Your task to perform on an android device: Open Chrome and go to settings Image 0: 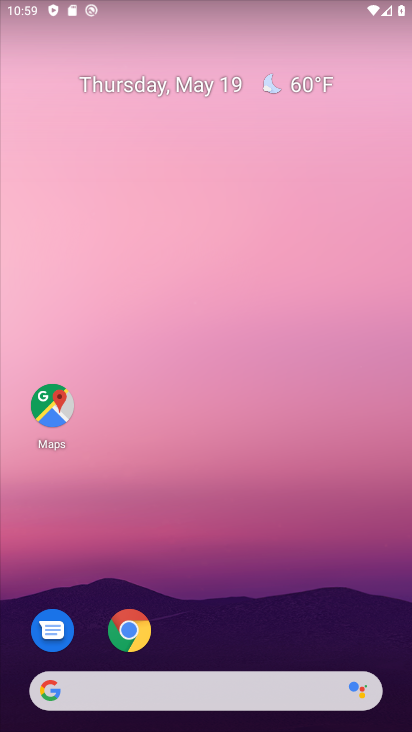
Step 0: drag from (221, 646) to (134, 210)
Your task to perform on an android device: Open Chrome and go to settings Image 1: 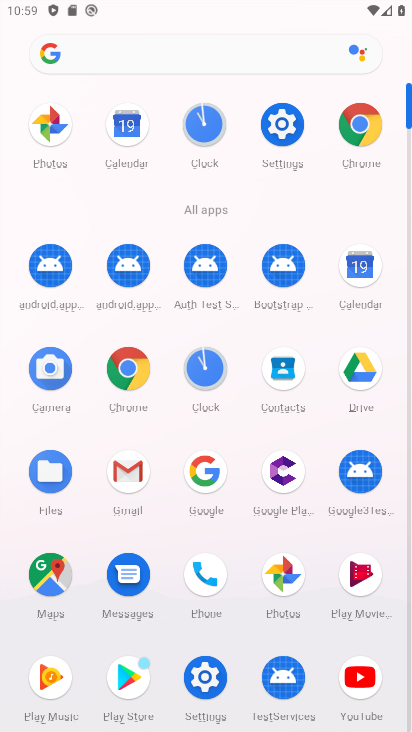
Step 1: click (285, 118)
Your task to perform on an android device: Open Chrome and go to settings Image 2: 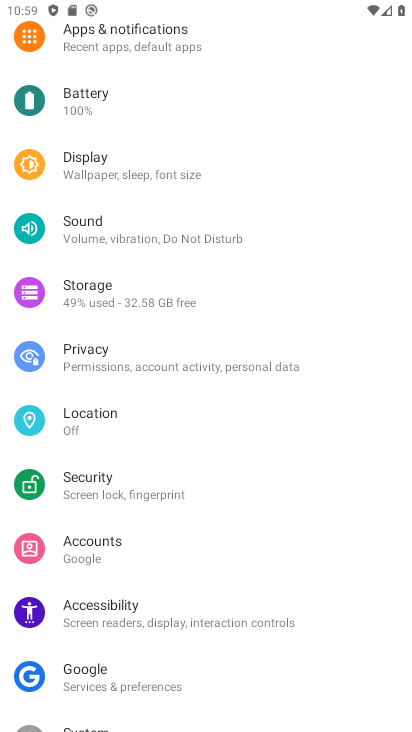
Step 2: task complete